Your task to perform on an android device: Go to Reddit.com Image 0: 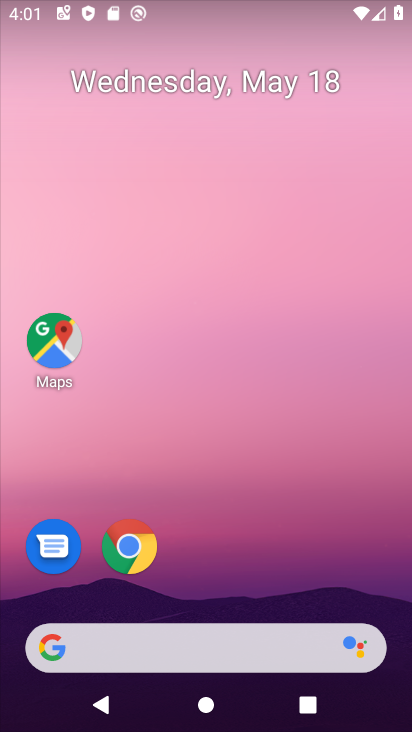
Step 0: drag from (236, 552) to (293, 112)
Your task to perform on an android device: Go to Reddit.com Image 1: 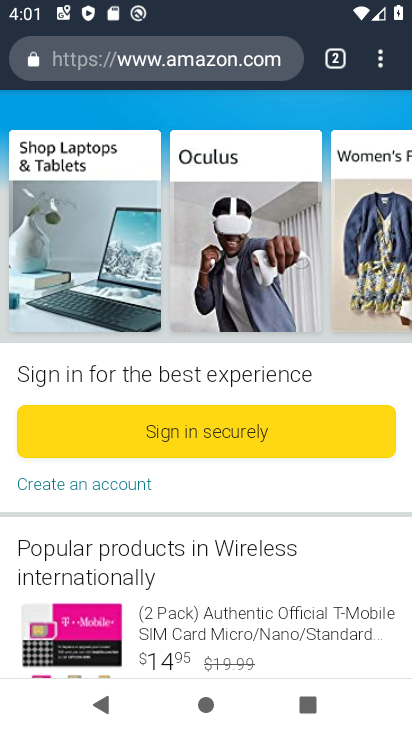
Step 1: click (188, 54)
Your task to perform on an android device: Go to Reddit.com Image 2: 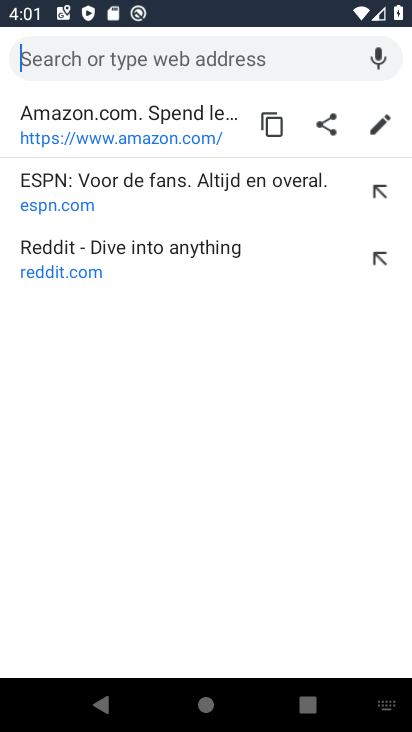
Step 2: type "Reddit.com"
Your task to perform on an android device: Go to Reddit.com Image 3: 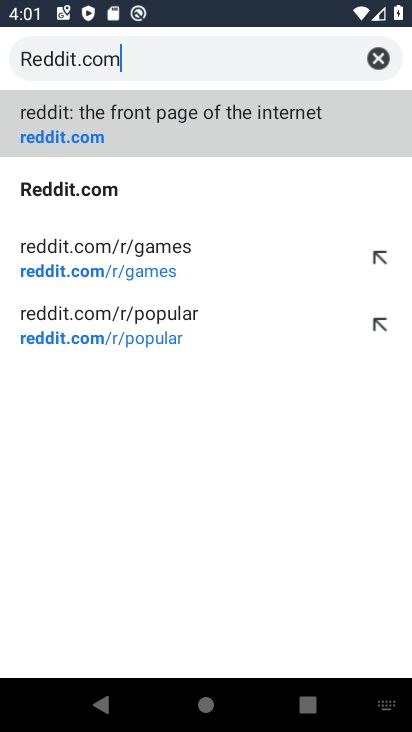
Step 3: click (101, 181)
Your task to perform on an android device: Go to Reddit.com Image 4: 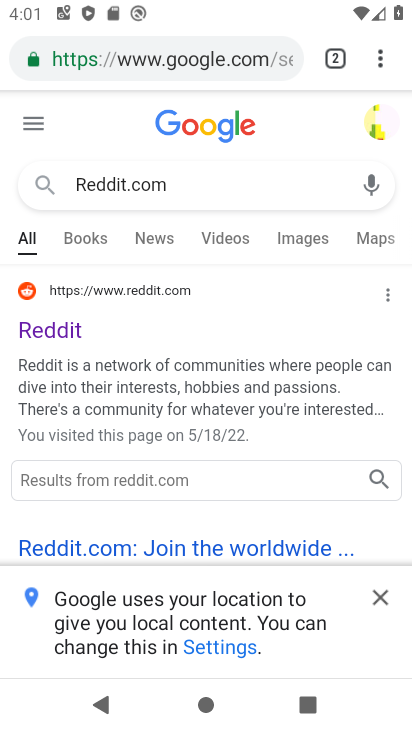
Step 4: click (377, 584)
Your task to perform on an android device: Go to Reddit.com Image 5: 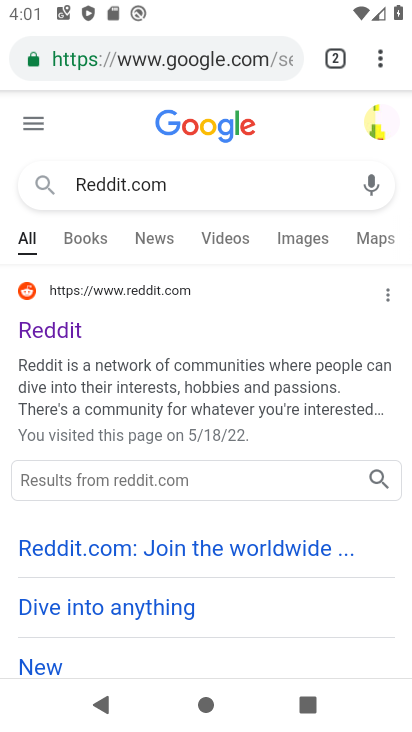
Step 5: task complete